Your task to perform on an android device: Search for top rated pizza restaurants on Maps Image 0: 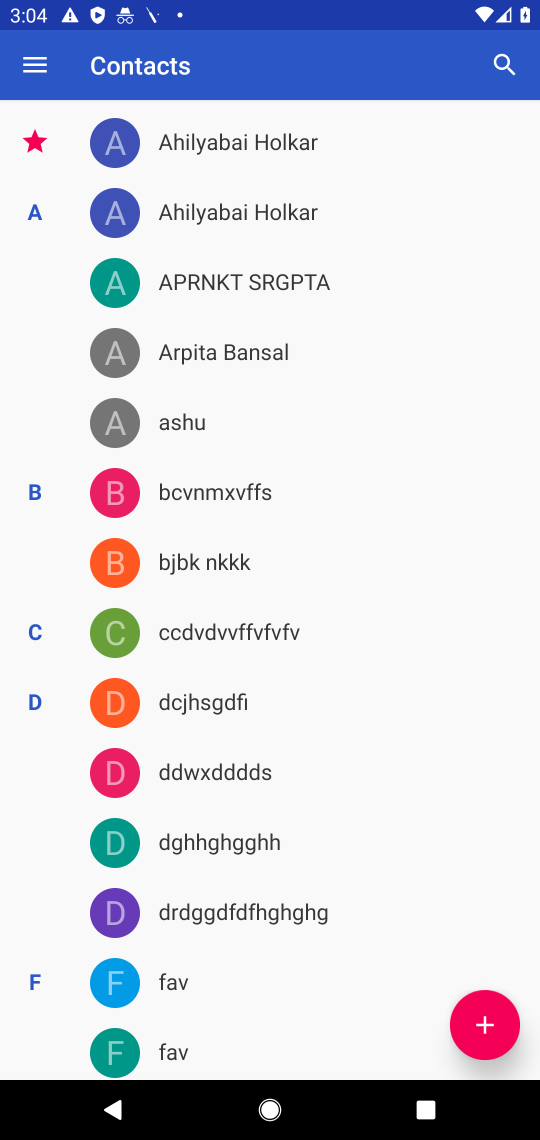
Step 0: press home button
Your task to perform on an android device: Search for top rated pizza restaurants on Maps Image 1: 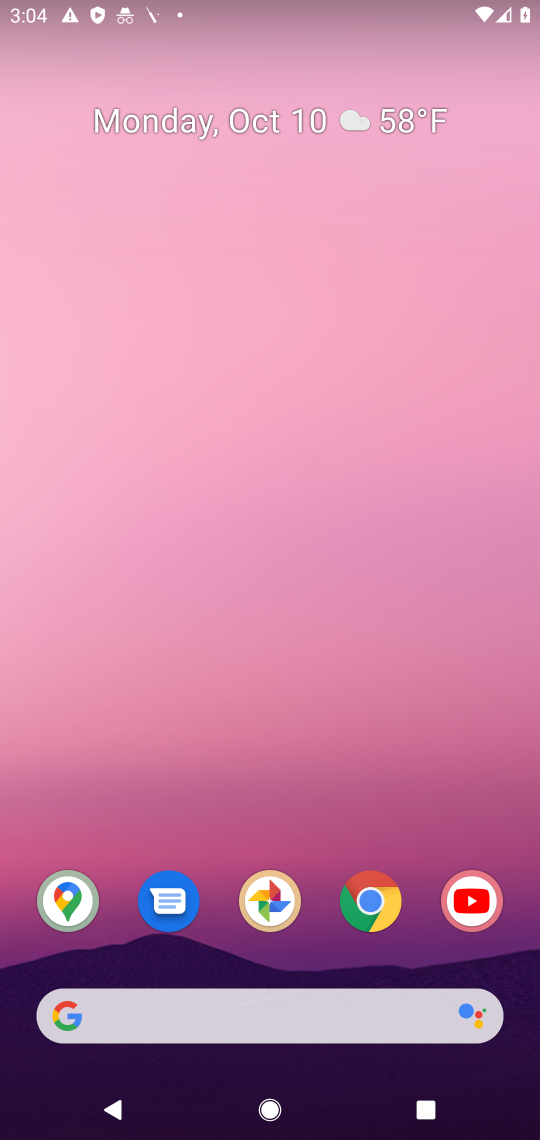
Step 1: drag from (372, 993) to (372, 424)
Your task to perform on an android device: Search for top rated pizza restaurants on Maps Image 2: 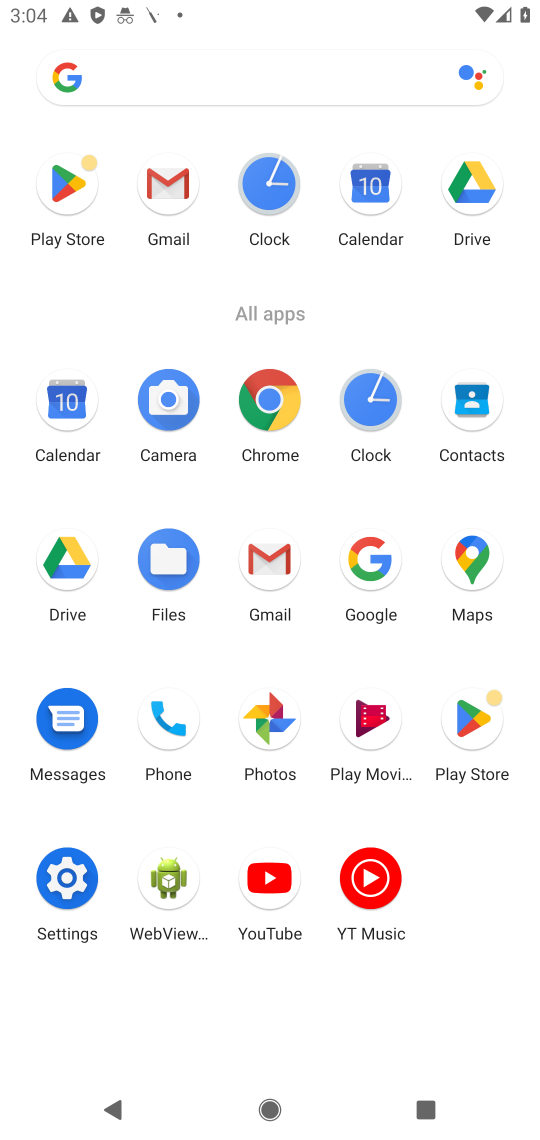
Step 2: click (473, 572)
Your task to perform on an android device: Search for top rated pizza restaurants on Maps Image 3: 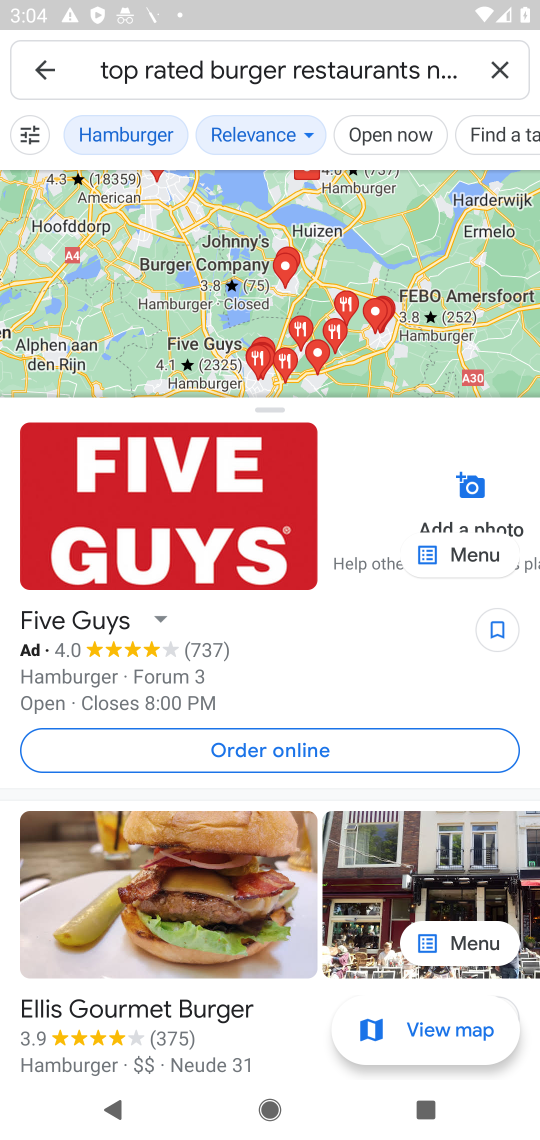
Step 3: click (513, 69)
Your task to perform on an android device: Search for top rated pizza restaurants on Maps Image 4: 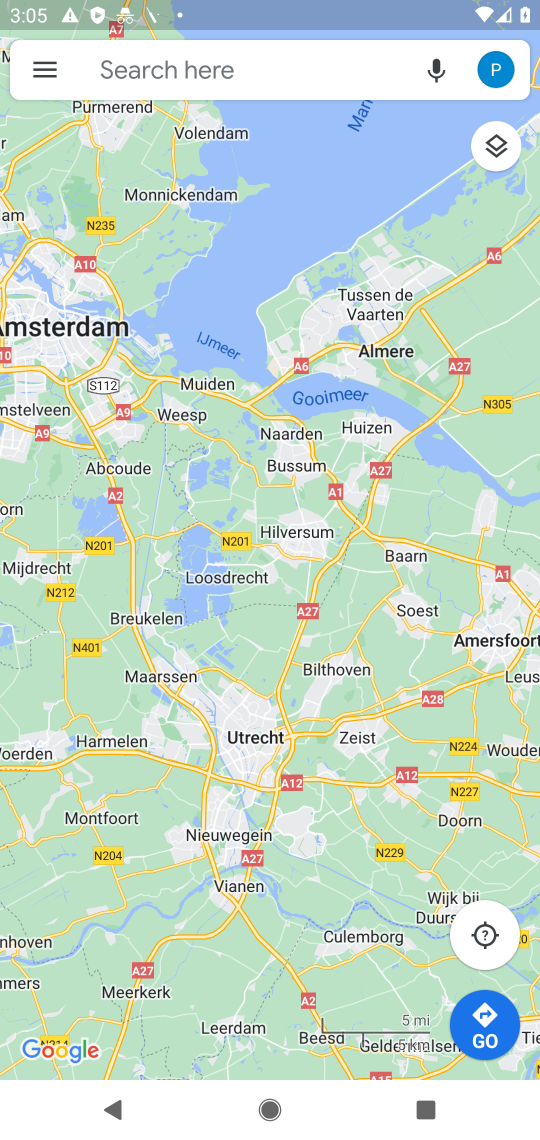
Step 4: click (329, 92)
Your task to perform on an android device: Search for top rated pizza restaurants on Maps Image 5: 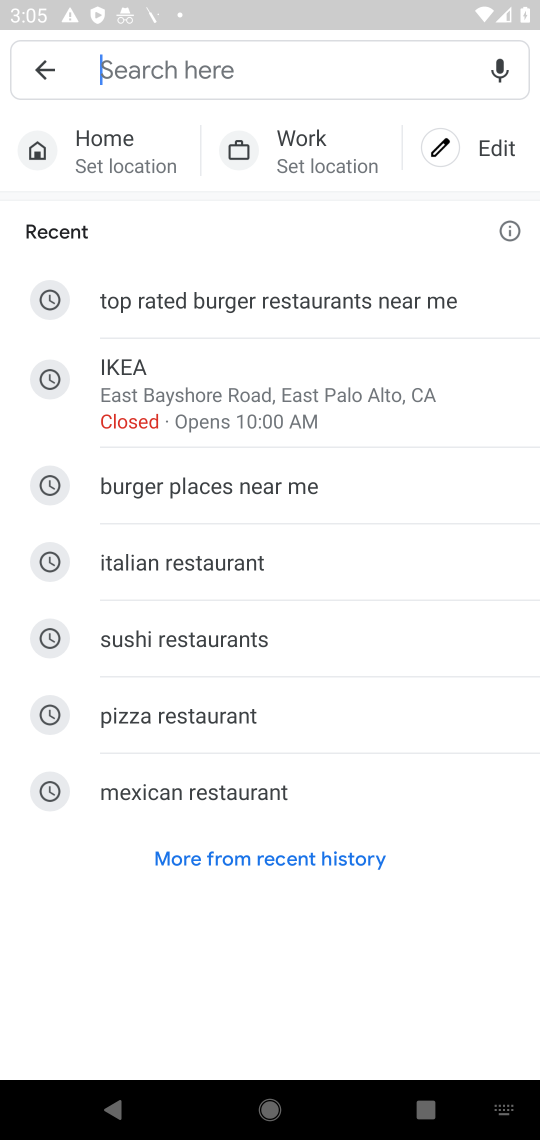
Step 5: type "top rated pizza restaurants"
Your task to perform on an android device: Search for top rated pizza restaurants on Maps Image 6: 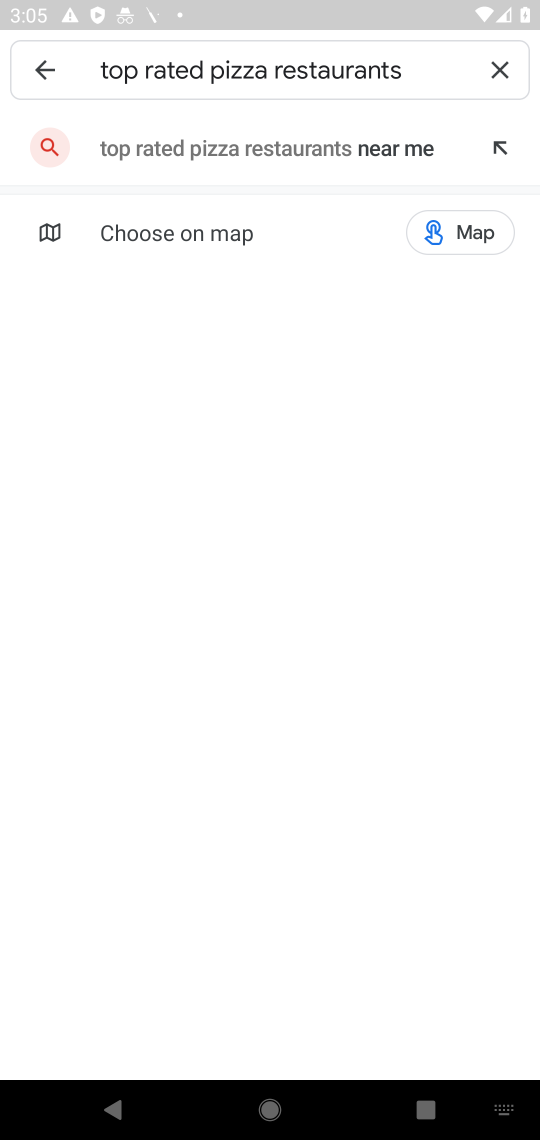
Step 6: click (399, 147)
Your task to perform on an android device: Search for top rated pizza restaurants on Maps Image 7: 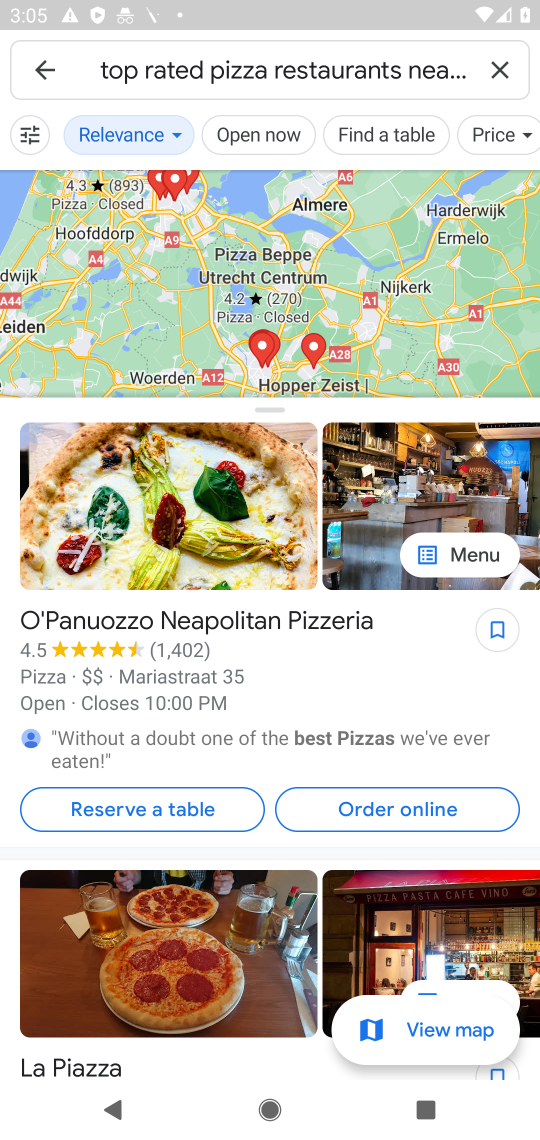
Step 7: task complete